Your task to perform on an android device: Go to battery settings Image 0: 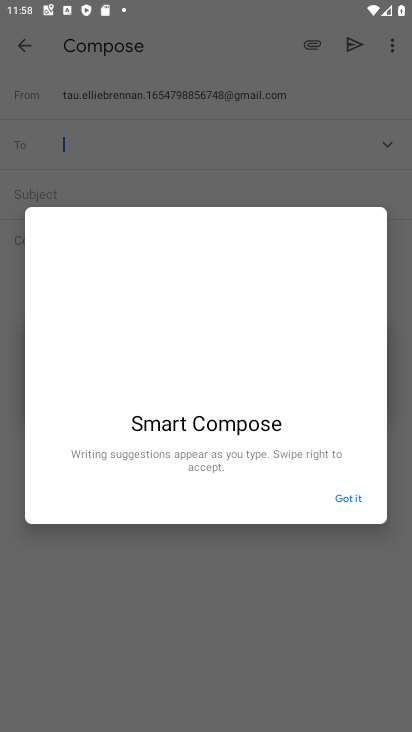
Step 0: press home button
Your task to perform on an android device: Go to battery settings Image 1: 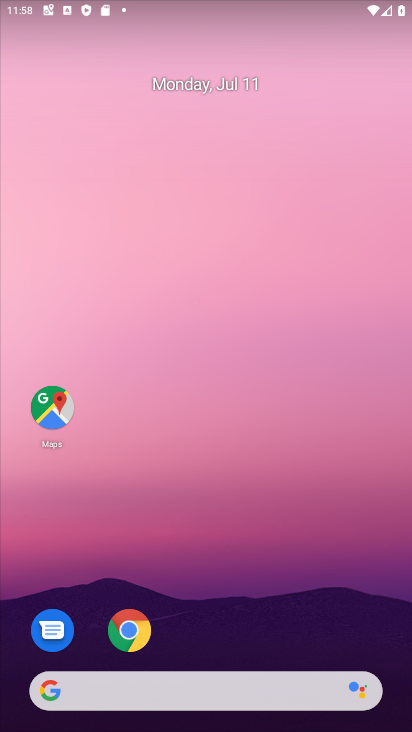
Step 1: drag from (340, 615) to (286, 93)
Your task to perform on an android device: Go to battery settings Image 2: 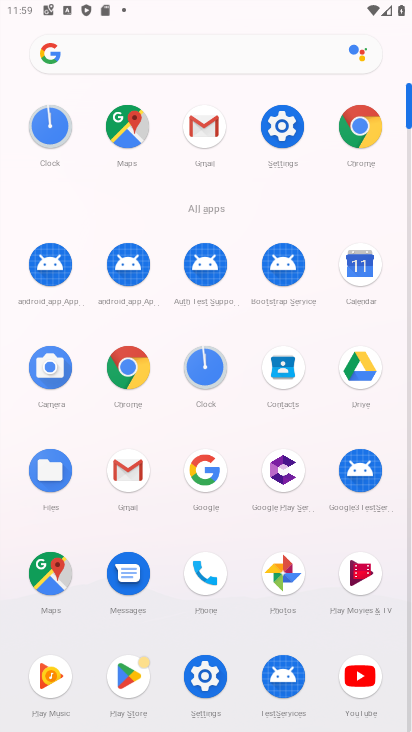
Step 2: click (203, 673)
Your task to perform on an android device: Go to battery settings Image 3: 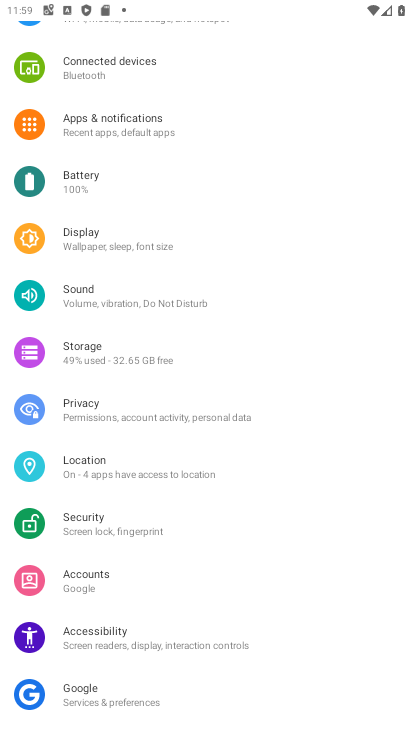
Step 3: drag from (223, 134) to (256, 383)
Your task to perform on an android device: Go to battery settings Image 4: 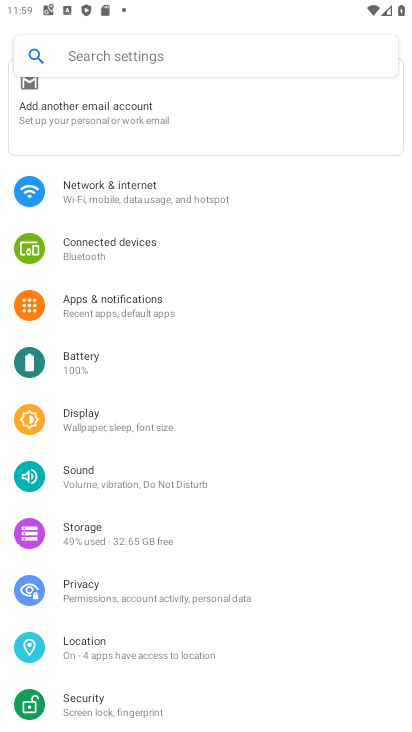
Step 4: click (100, 364)
Your task to perform on an android device: Go to battery settings Image 5: 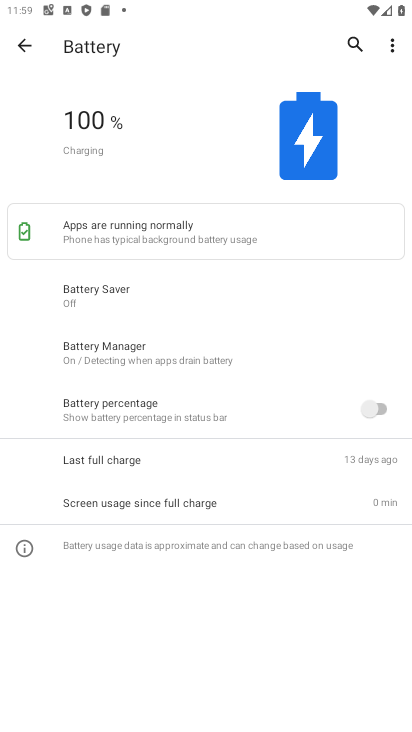
Step 5: task complete